Your task to perform on an android device: check the backup settings in the google photos Image 0: 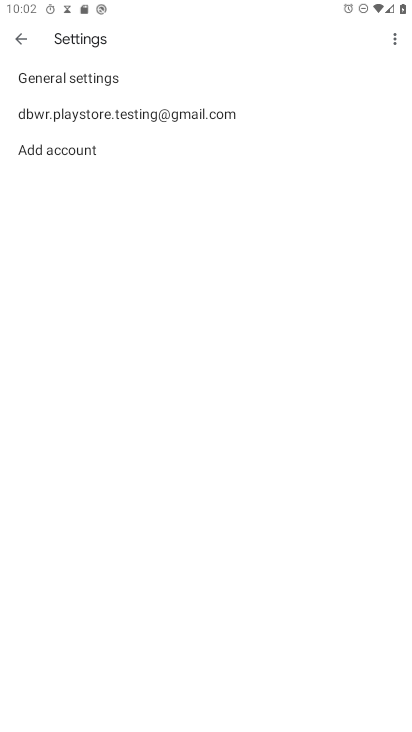
Step 0: press home button
Your task to perform on an android device: check the backup settings in the google photos Image 1: 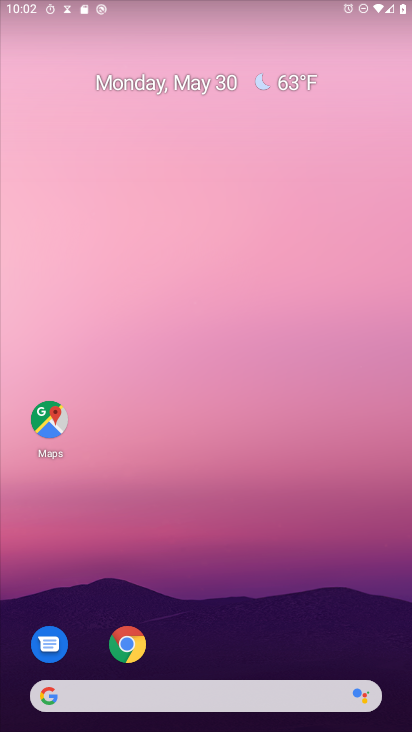
Step 1: drag from (248, 655) to (237, 41)
Your task to perform on an android device: check the backup settings in the google photos Image 2: 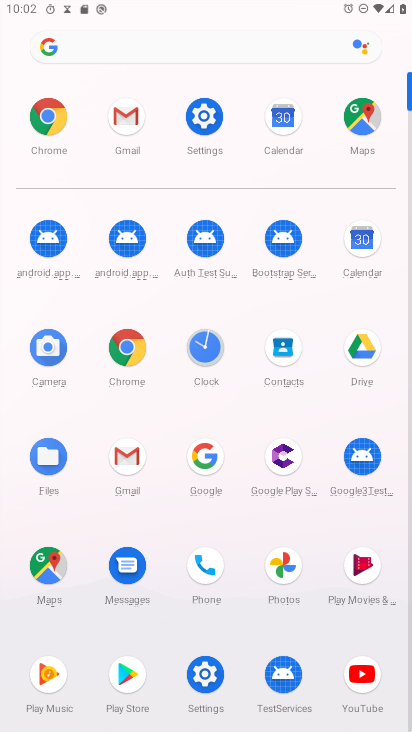
Step 2: click (283, 567)
Your task to perform on an android device: check the backup settings in the google photos Image 3: 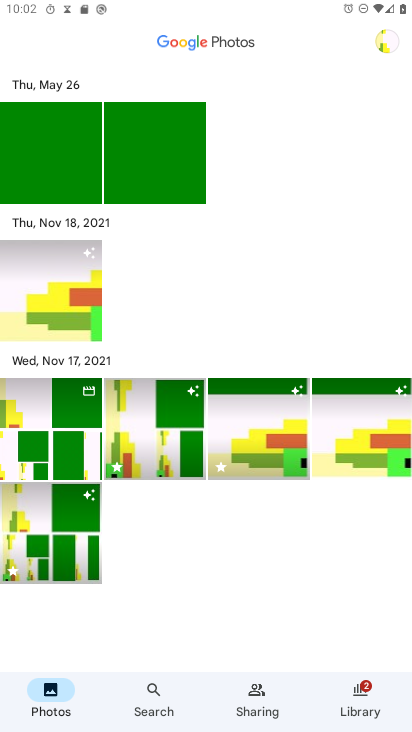
Step 3: click (387, 37)
Your task to perform on an android device: check the backup settings in the google photos Image 4: 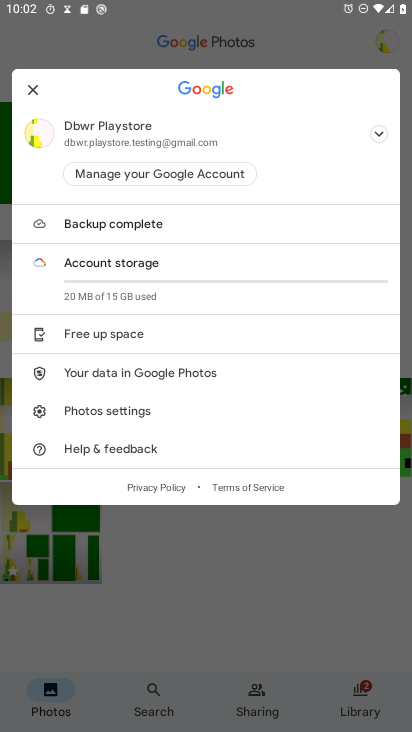
Step 4: click (89, 410)
Your task to perform on an android device: check the backup settings in the google photos Image 5: 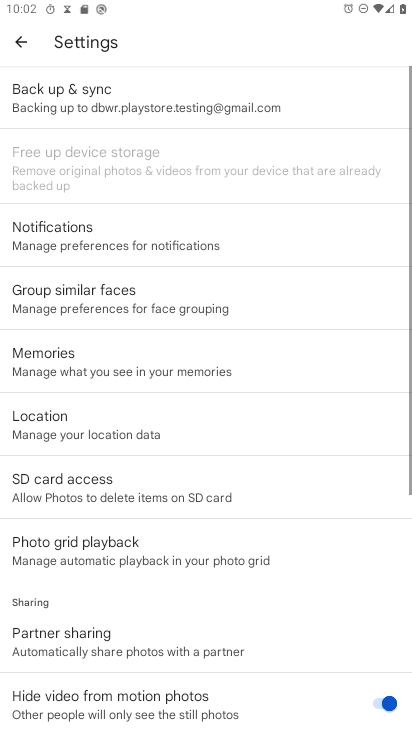
Step 5: click (114, 106)
Your task to perform on an android device: check the backup settings in the google photos Image 6: 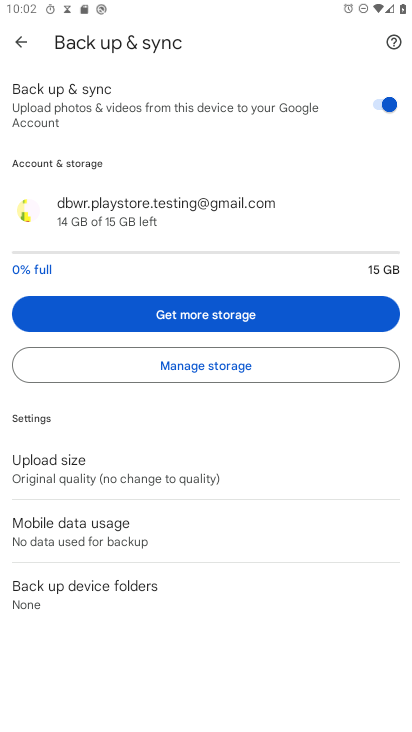
Step 6: task complete